Your task to perform on an android device: turn off smart reply in the gmail app Image 0: 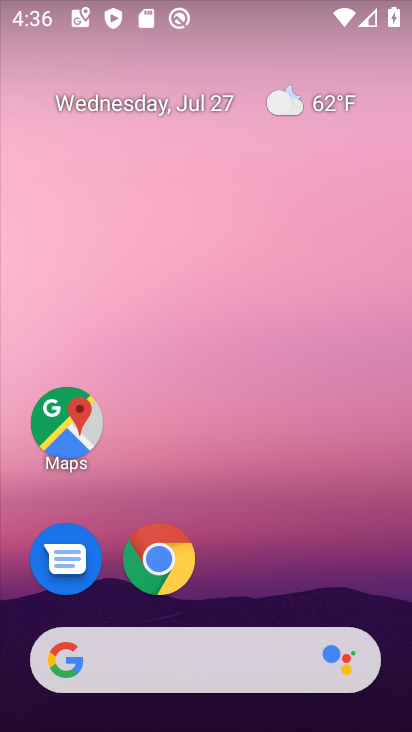
Step 0: drag from (257, 575) to (308, 55)
Your task to perform on an android device: turn off smart reply in the gmail app Image 1: 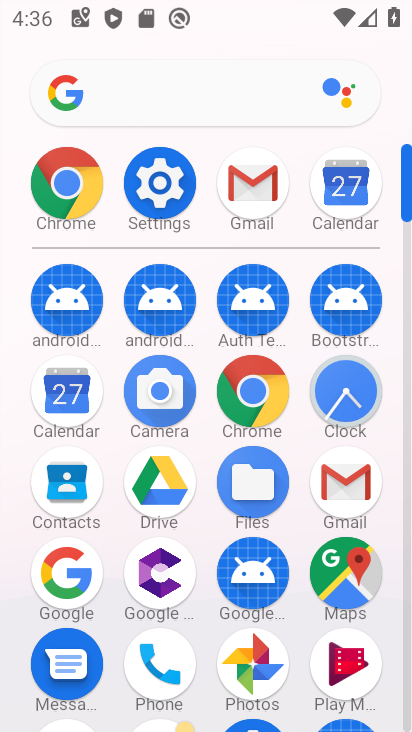
Step 1: click (256, 197)
Your task to perform on an android device: turn off smart reply in the gmail app Image 2: 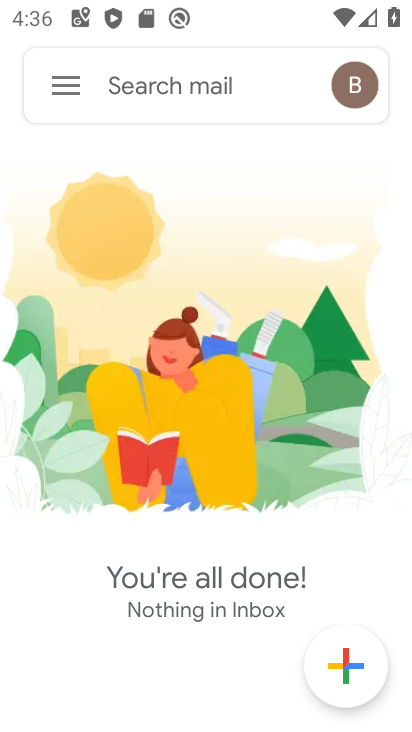
Step 2: click (78, 79)
Your task to perform on an android device: turn off smart reply in the gmail app Image 3: 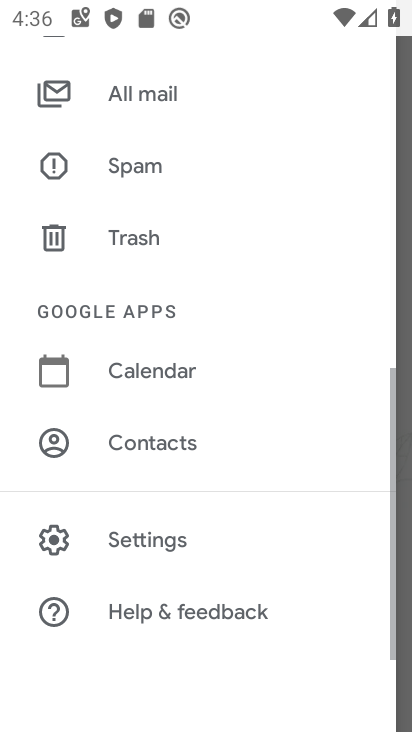
Step 3: click (156, 532)
Your task to perform on an android device: turn off smart reply in the gmail app Image 4: 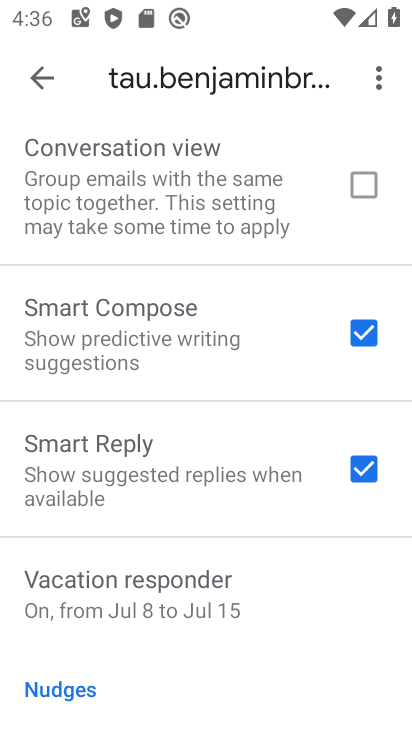
Step 4: click (360, 466)
Your task to perform on an android device: turn off smart reply in the gmail app Image 5: 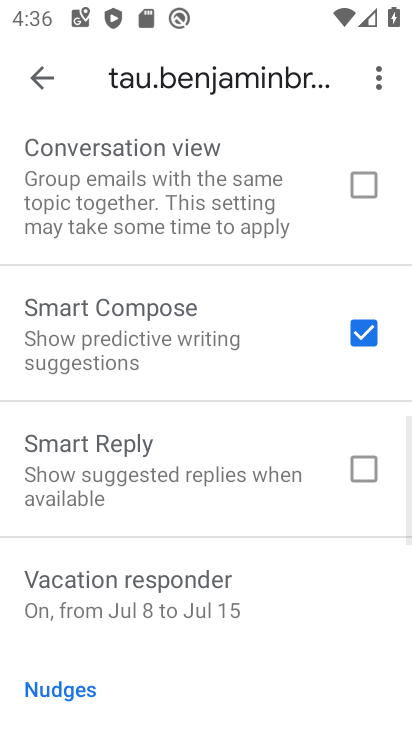
Step 5: task complete